Your task to perform on an android device: Search for Mexican restaurants on Maps Image 0: 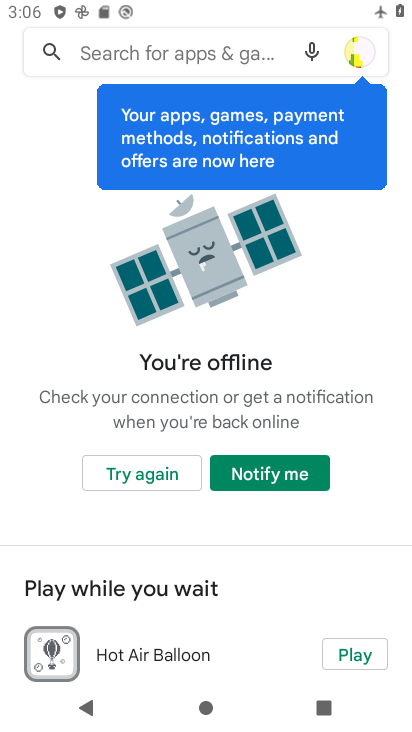
Step 0: press home button
Your task to perform on an android device: Search for Mexican restaurants on Maps Image 1: 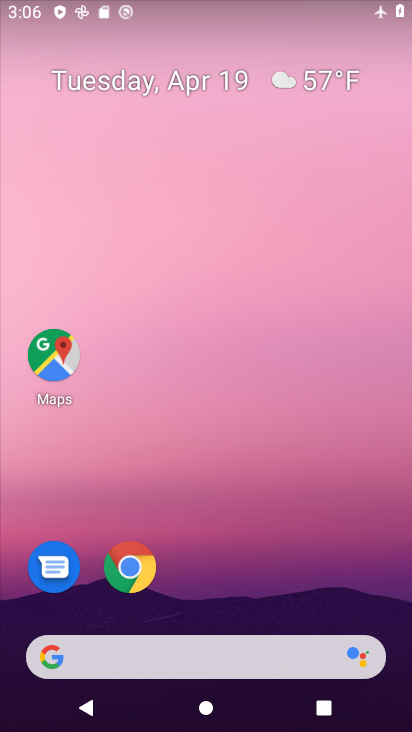
Step 1: drag from (375, 602) to (376, 123)
Your task to perform on an android device: Search for Mexican restaurants on Maps Image 2: 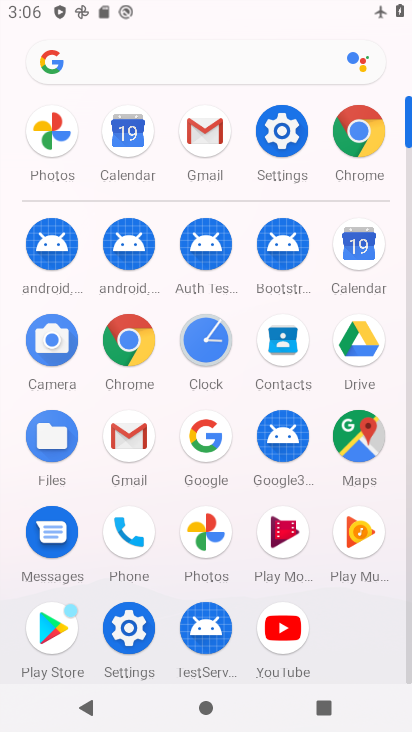
Step 2: click (360, 439)
Your task to perform on an android device: Search for Mexican restaurants on Maps Image 3: 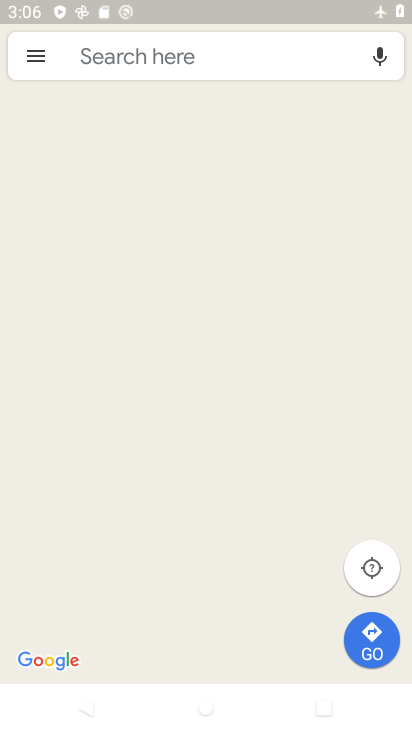
Step 3: click (217, 52)
Your task to perform on an android device: Search for Mexican restaurants on Maps Image 4: 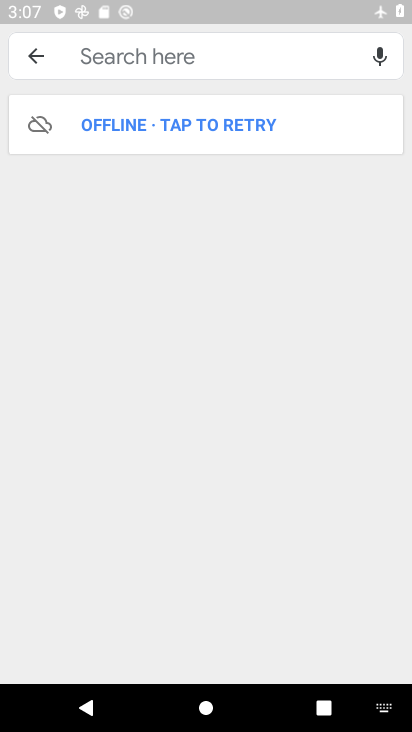
Step 4: task complete